Your task to perform on an android device: Find coffee shops on Maps Image 0: 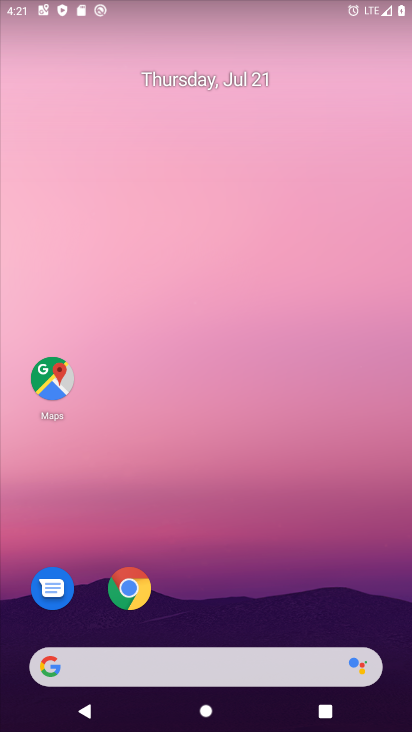
Step 0: drag from (272, 607) to (278, 64)
Your task to perform on an android device: Find coffee shops on Maps Image 1: 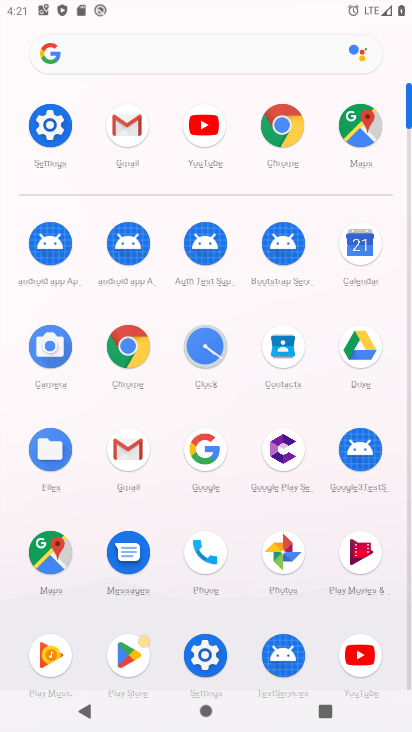
Step 1: click (366, 124)
Your task to perform on an android device: Find coffee shops on Maps Image 2: 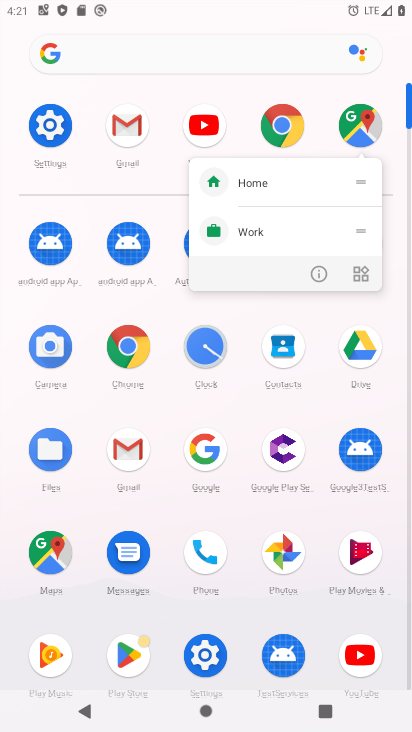
Step 2: click (366, 124)
Your task to perform on an android device: Find coffee shops on Maps Image 3: 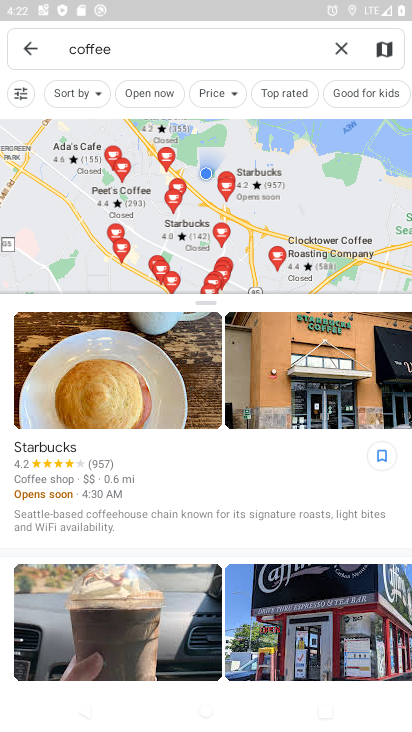
Step 3: task complete